Your task to perform on an android device: Do I have any events today? Image 0: 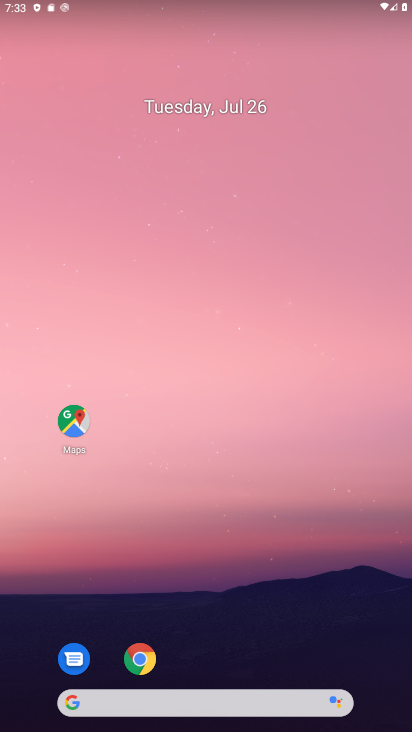
Step 0: drag from (211, 678) to (96, 206)
Your task to perform on an android device: Do I have any events today? Image 1: 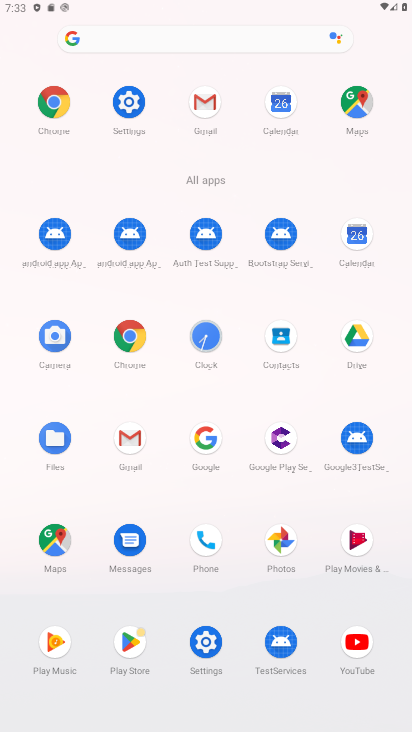
Step 1: click (365, 235)
Your task to perform on an android device: Do I have any events today? Image 2: 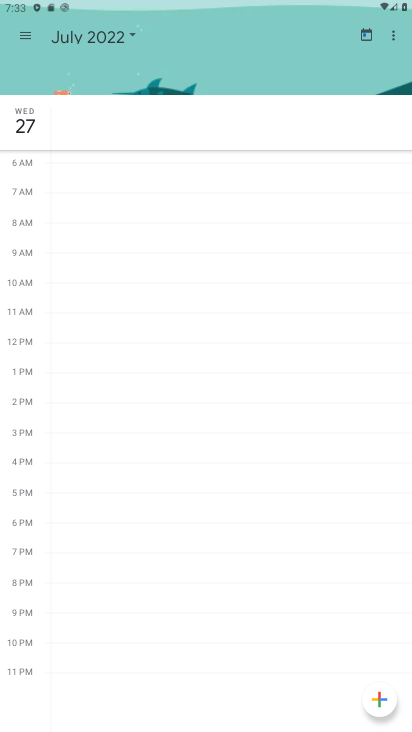
Step 2: click (28, 34)
Your task to perform on an android device: Do I have any events today? Image 3: 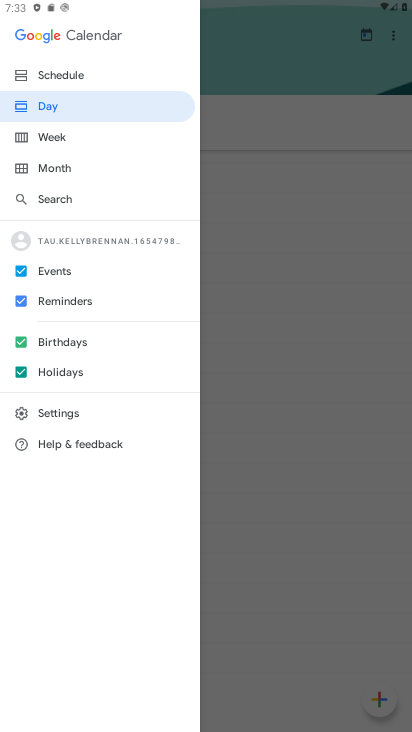
Step 3: click (55, 138)
Your task to perform on an android device: Do I have any events today? Image 4: 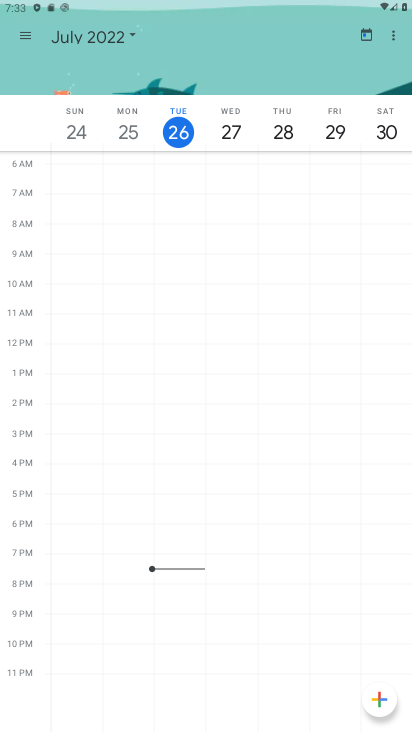
Step 4: click (181, 126)
Your task to perform on an android device: Do I have any events today? Image 5: 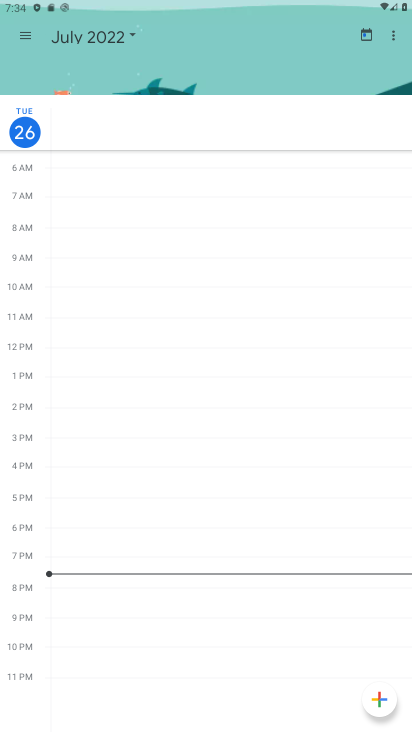
Step 5: task complete